Your task to perform on an android device: What's the weather? Image 0: 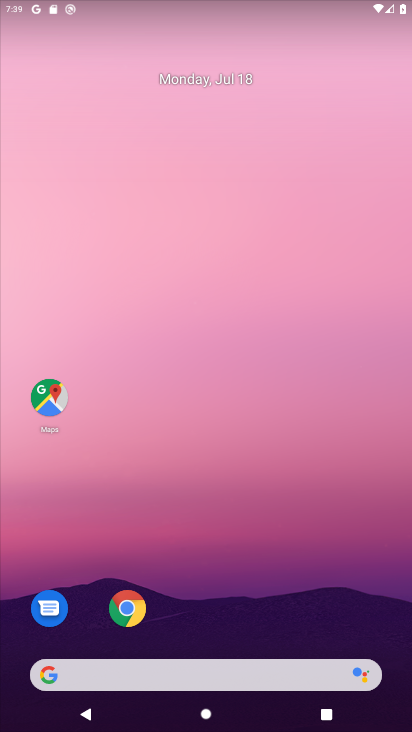
Step 0: click (192, 664)
Your task to perform on an android device: What's the weather? Image 1: 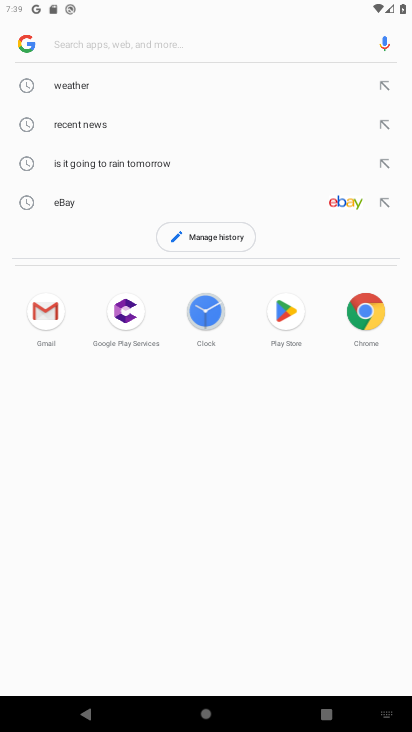
Step 1: click (88, 84)
Your task to perform on an android device: What's the weather? Image 2: 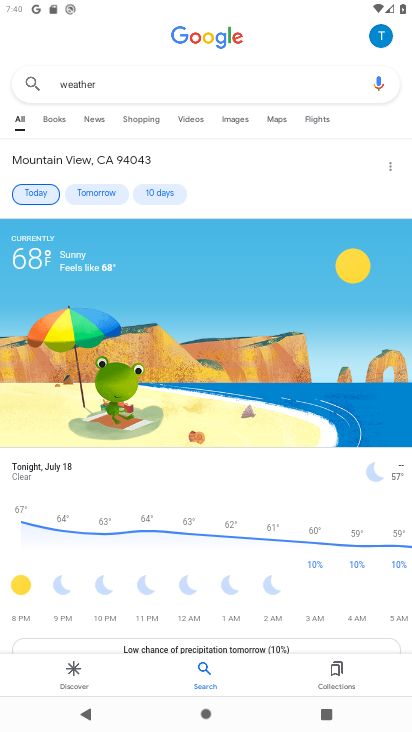
Step 2: task complete